Your task to perform on an android device: create a new album in the google photos Image 0: 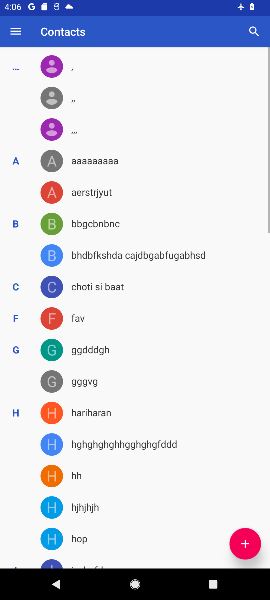
Step 0: press back button
Your task to perform on an android device: create a new album in the google photos Image 1: 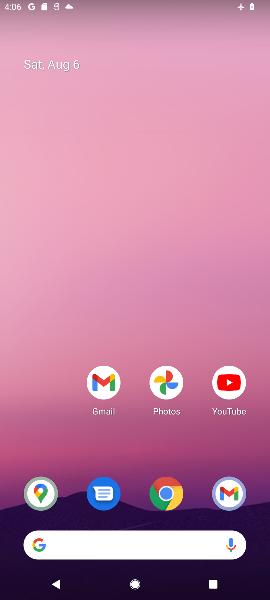
Step 1: press home button
Your task to perform on an android device: create a new album in the google photos Image 2: 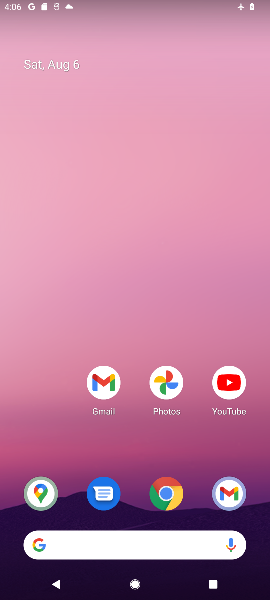
Step 2: drag from (201, 346) to (138, 91)
Your task to perform on an android device: create a new album in the google photos Image 3: 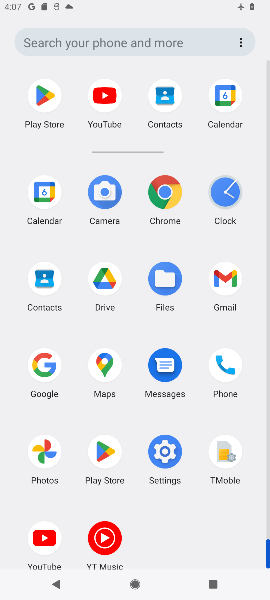
Step 3: click (37, 442)
Your task to perform on an android device: create a new album in the google photos Image 4: 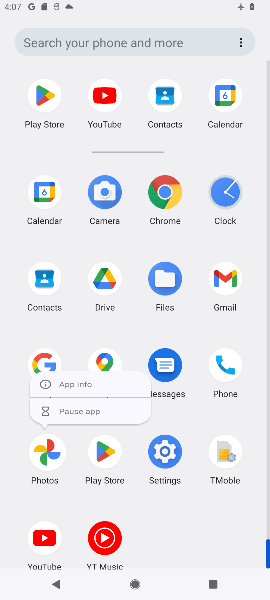
Step 4: click (42, 443)
Your task to perform on an android device: create a new album in the google photos Image 5: 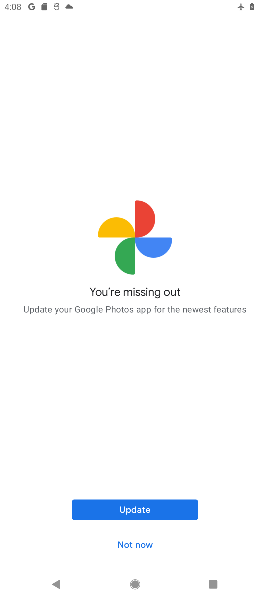
Step 5: click (133, 536)
Your task to perform on an android device: create a new album in the google photos Image 6: 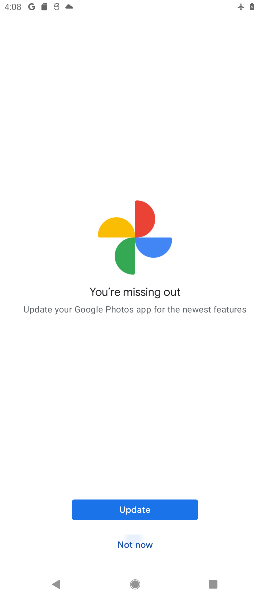
Step 6: click (133, 537)
Your task to perform on an android device: create a new album in the google photos Image 7: 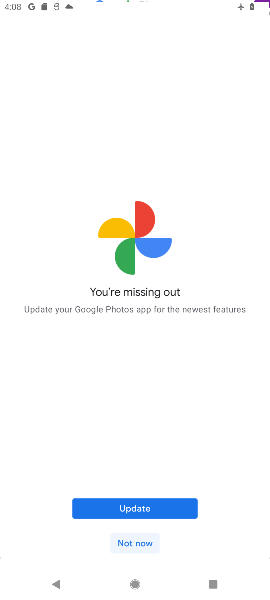
Step 7: click (135, 540)
Your task to perform on an android device: create a new album in the google photos Image 8: 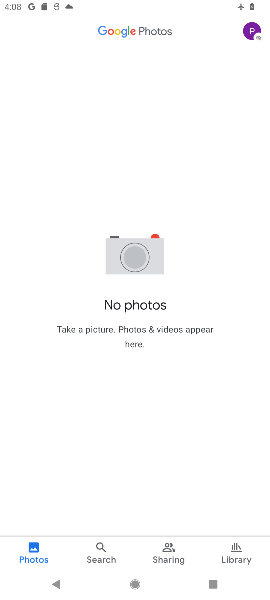
Step 8: click (139, 538)
Your task to perform on an android device: create a new album in the google photos Image 9: 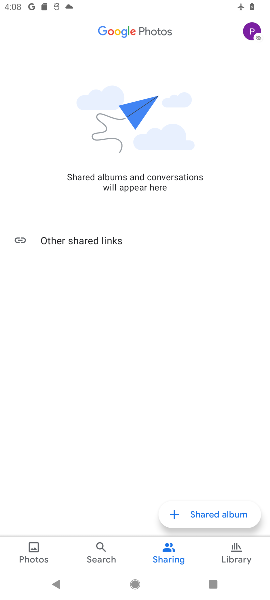
Step 9: press back button
Your task to perform on an android device: create a new album in the google photos Image 10: 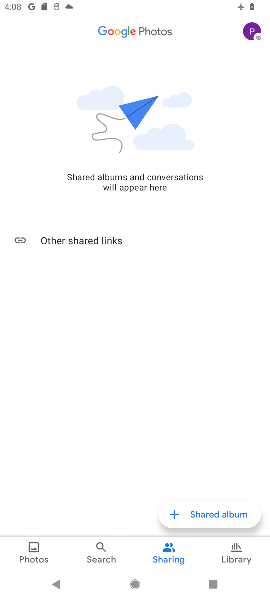
Step 10: press back button
Your task to perform on an android device: create a new album in the google photos Image 11: 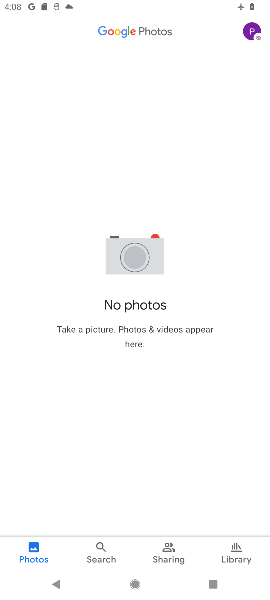
Step 11: press back button
Your task to perform on an android device: create a new album in the google photos Image 12: 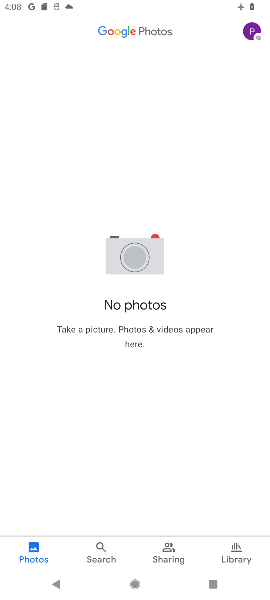
Step 12: press back button
Your task to perform on an android device: create a new album in the google photos Image 13: 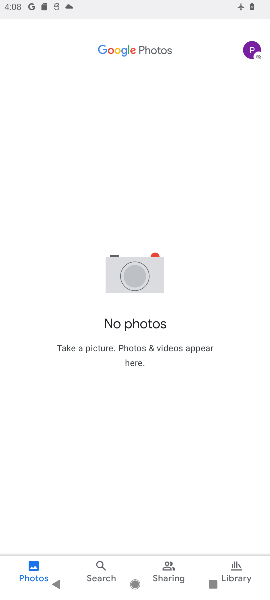
Step 13: press back button
Your task to perform on an android device: create a new album in the google photos Image 14: 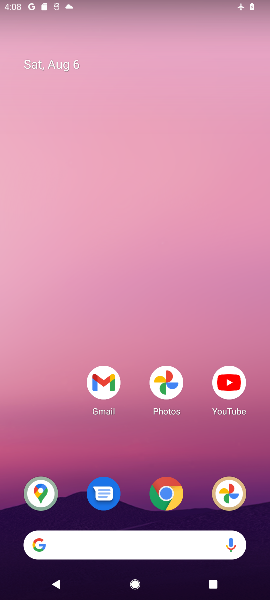
Step 14: press back button
Your task to perform on an android device: create a new album in the google photos Image 15: 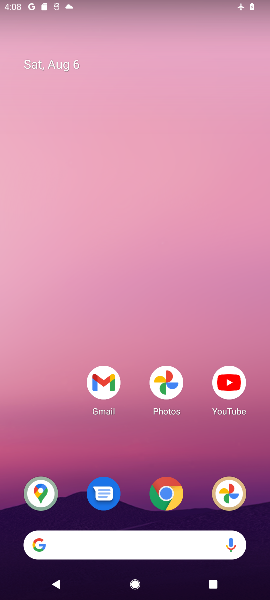
Step 15: drag from (207, 524) to (157, 256)
Your task to perform on an android device: create a new album in the google photos Image 16: 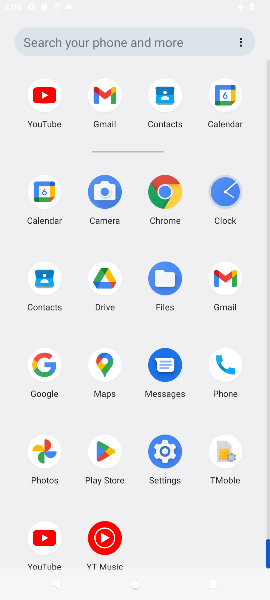
Step 16: drag from (146, 433) to (149, 132)
Your task to perform on an android device: create a new album in the google photos Image 17: 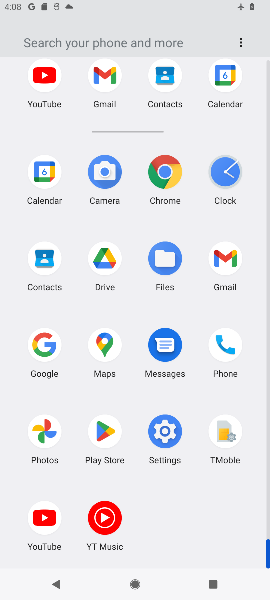
Step 17: click (40, 433)
Your task to perform on an android device: create a new album in the google photos Image 18: 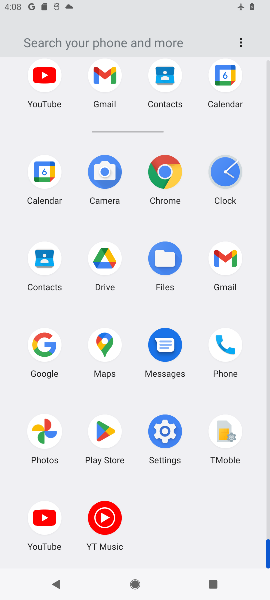
Step 18: click (40, 433)
Your task to perform on an android device: create a new album in the google photos Image 19: 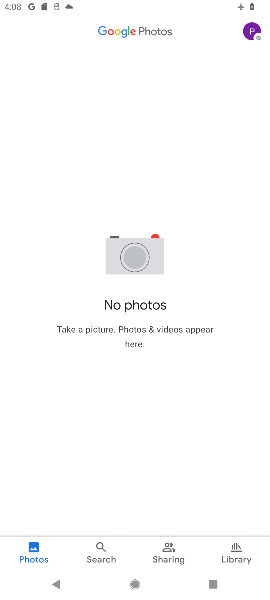
Step 19: drag from (250, 31) to (152, 332)
Your task to perform on an android device: create a new album in the google photos Image 20: 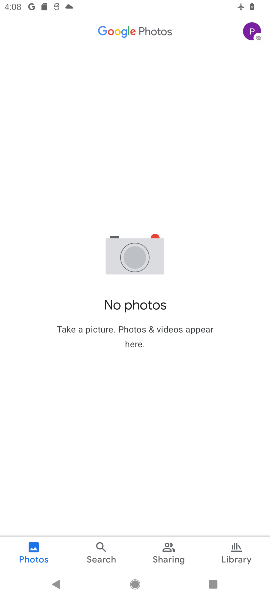
Step 20: click (247, 38)
Your task to perform on an android device: create a new album in the google photos Image 21: 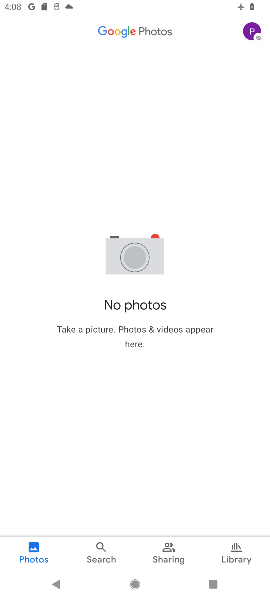
Step 21: click (247, 38)
Your task to perform on an android device: create a new album in the google photos Image 22: 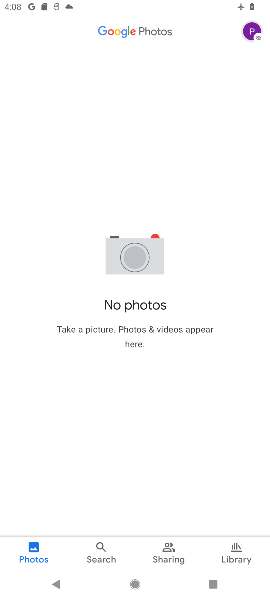
Step 22: click (248, 37)
Your task to perform on an android device: create a new album in the google photos Image 23: 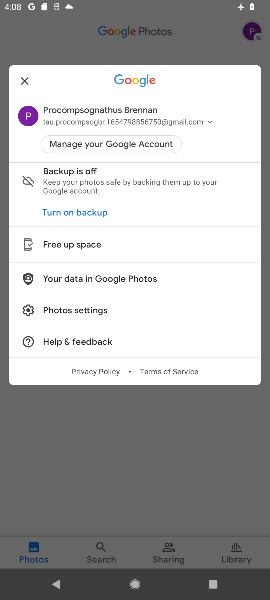
Step 23: click (251, 36)
Your task to perform on an android device: create a new album in the google photos Image 24: 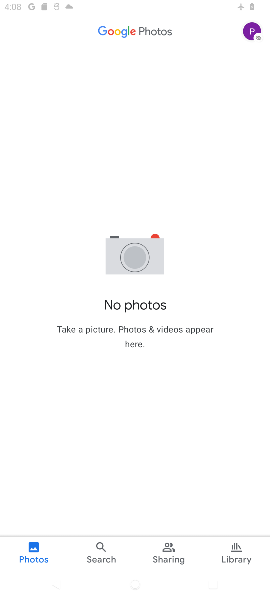
Step 24: click (251, 36)
Your task to perform on an android device: create a new album in the google photos Image 25: 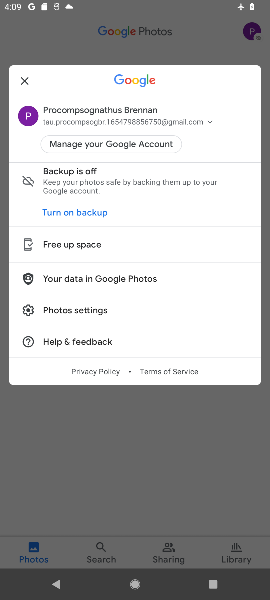
Step 25: click (83, 444)
Your task to perform on an android device: create a new album in the google photos Image 26: 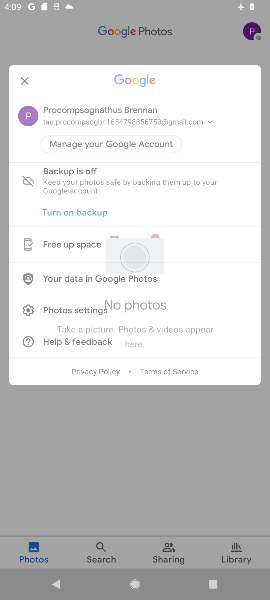
Step 26: click (82, 448)
Your task to perform on an android device: create a new album in the google photos Image 27: 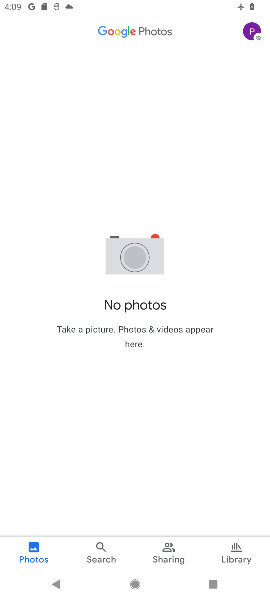
Step 27: click (84, 451)
Your task to perform on an android device: create a new album in the google photos Image 28: 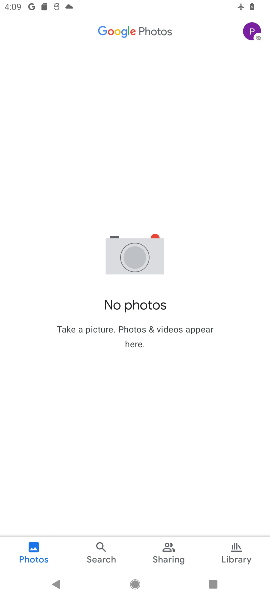
Step 28: click (84, 450)
Your task to perform on an android device: create a new album in the google photos Image 29: 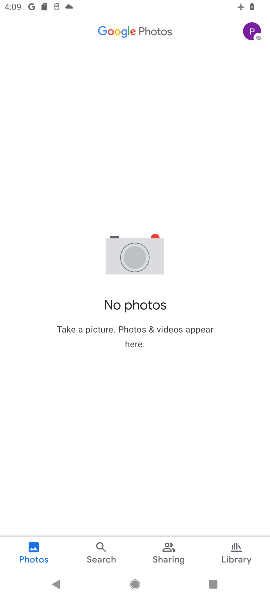
Step 29: click (33, 536)
Your task to perform on an android device: create a new album in the google photos Image 30: 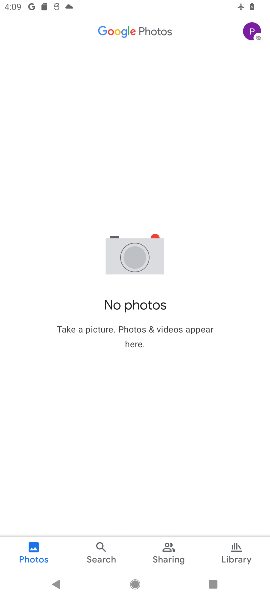
Step 30: click (33, 548)
Your task to perform on an android device: create a new album in the google photos Image 31: 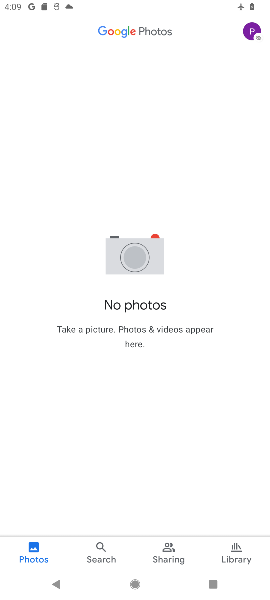
Step 31: click (32, 549)
Your task to perform on an android device: create a new album in the google photos Image 32: 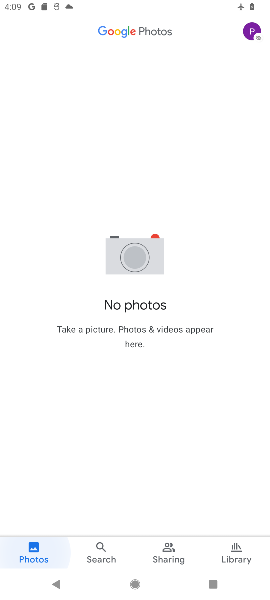
Step 32: click (33, 550)
Your task to perform on an android device: create a new album in the google photos Image 33: 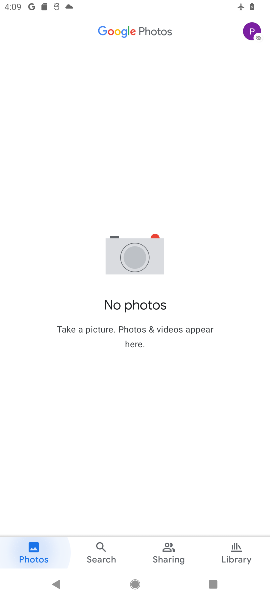
Step 33: click (33, 550)
Your task to perform on an android device: create a new album in the google photos Image 34: 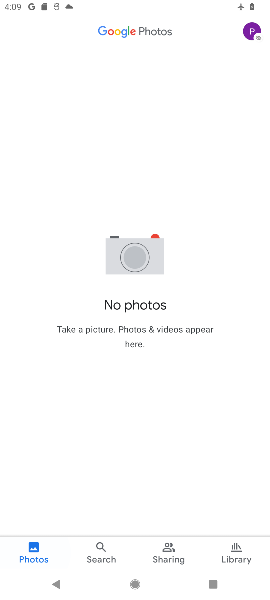
Step 34: task complete